Your task to perform on an android device: turn on the 12-hour format for clock Image 0: 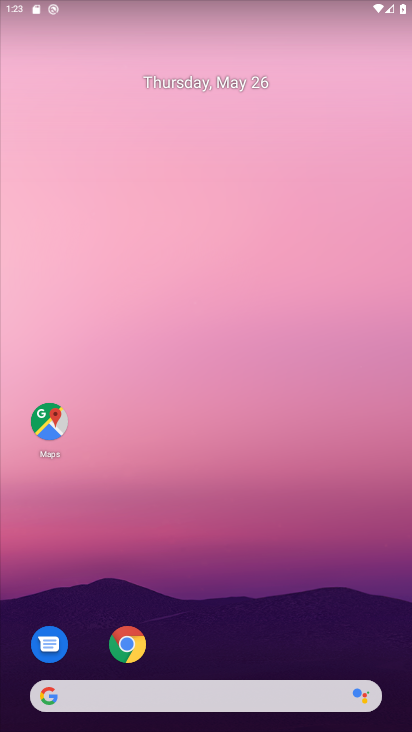
Step 0: drag from (255, 658) to (259, 144)
Your task to perform on an android device: turn on the 12-hour format for clock Image 1: 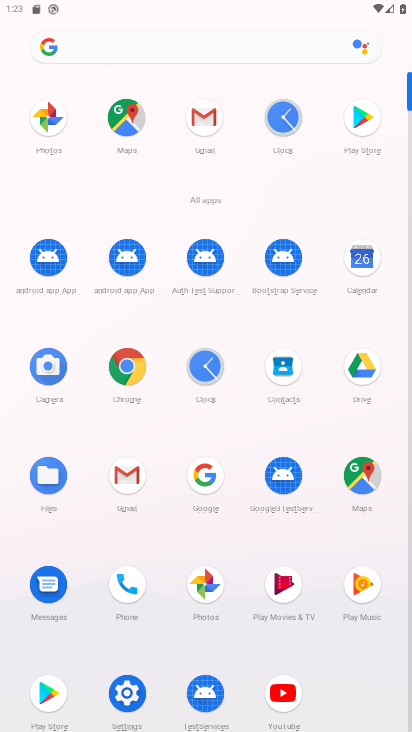
Step 1: click (292, 113)
Your task to perform on an android device: turn on the 12-hour format for clock Image 2: 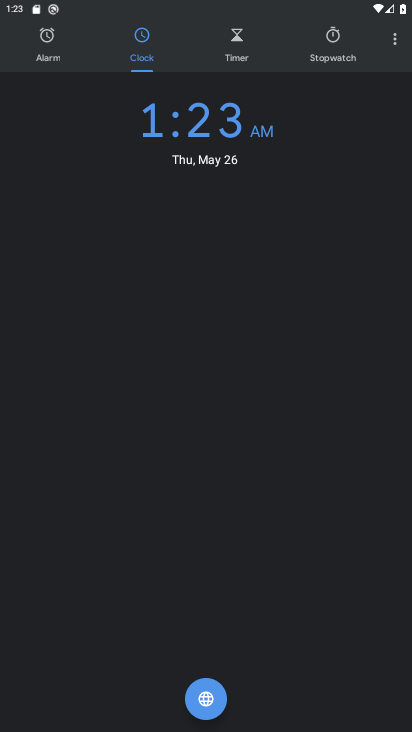
Step 2: click (392, 38)
Your task to perform on an android device: turn on the 12-hour format for clock Image 3: 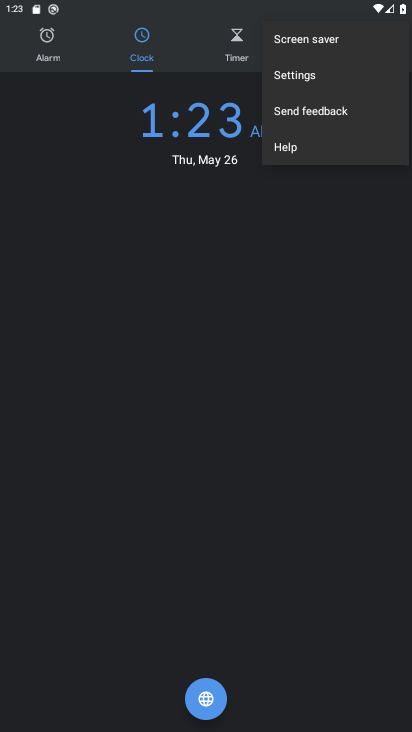
Step 3: click (335, 84)
Your task to perform on an android device: turn on the 12-hour format for clock Image 4: 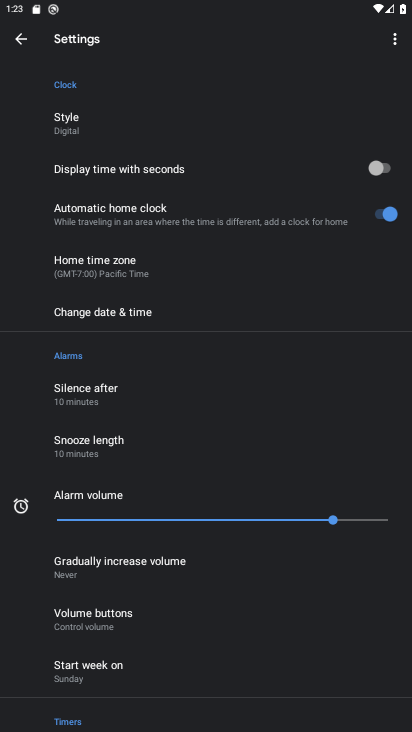
Step 4: click (146, 309)
Your task to perform on an android device: turn on the 12-hour format for clock Image 5: 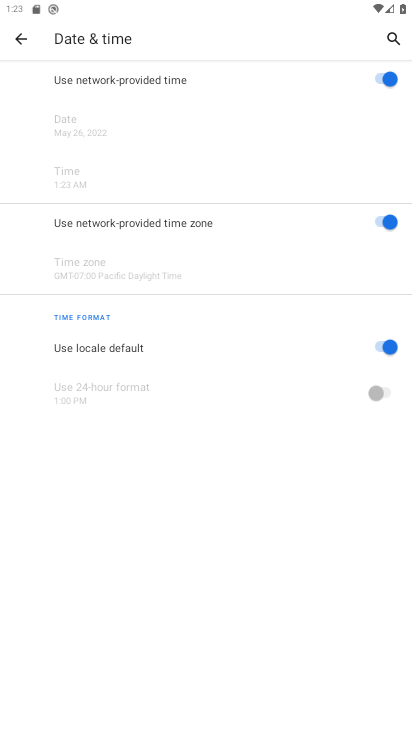
Step 5: task complete